Your task to perform on an android device: install app "ColorNote Notepad Notes" Image 0: 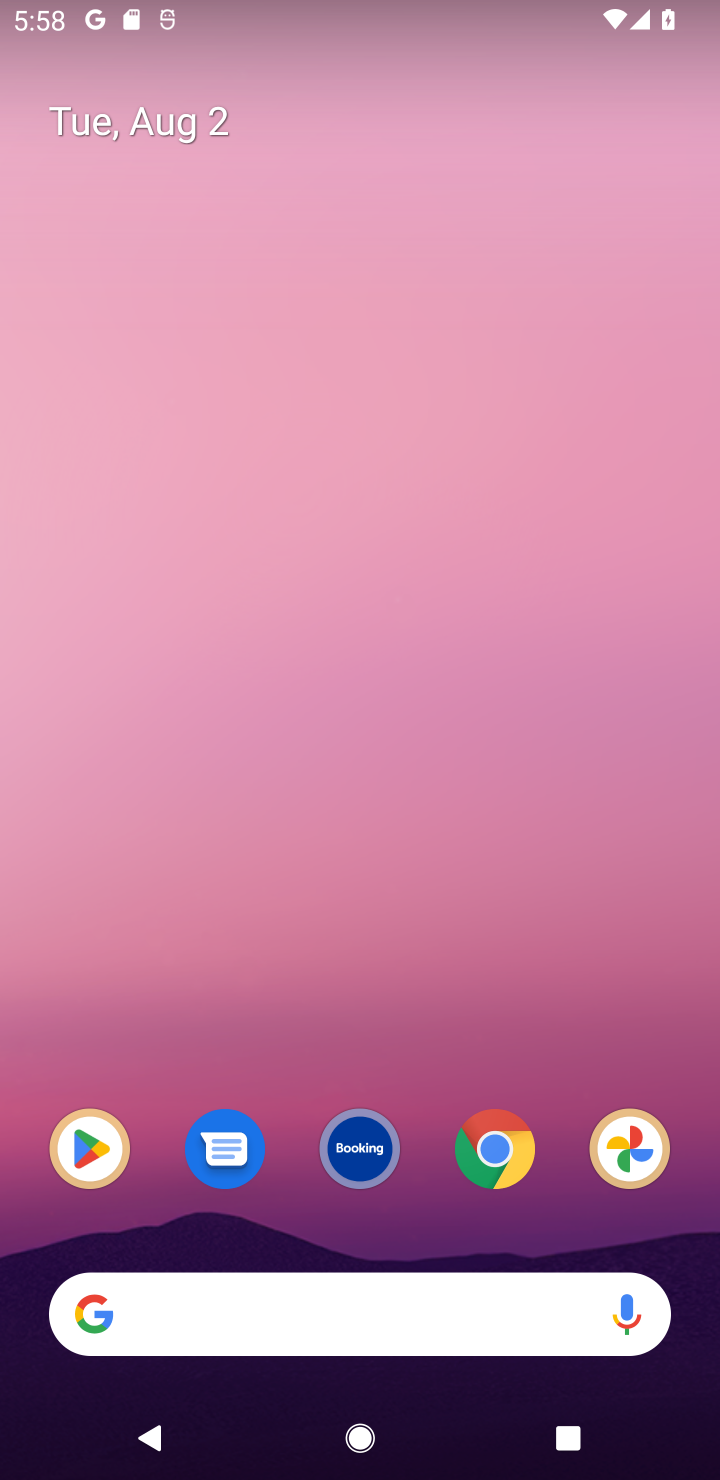
Step 0: drag from (210, 1267) to (489, 12)
Your task to perform on an android device: install app "ColorNote Notepad Notes" Image 1: 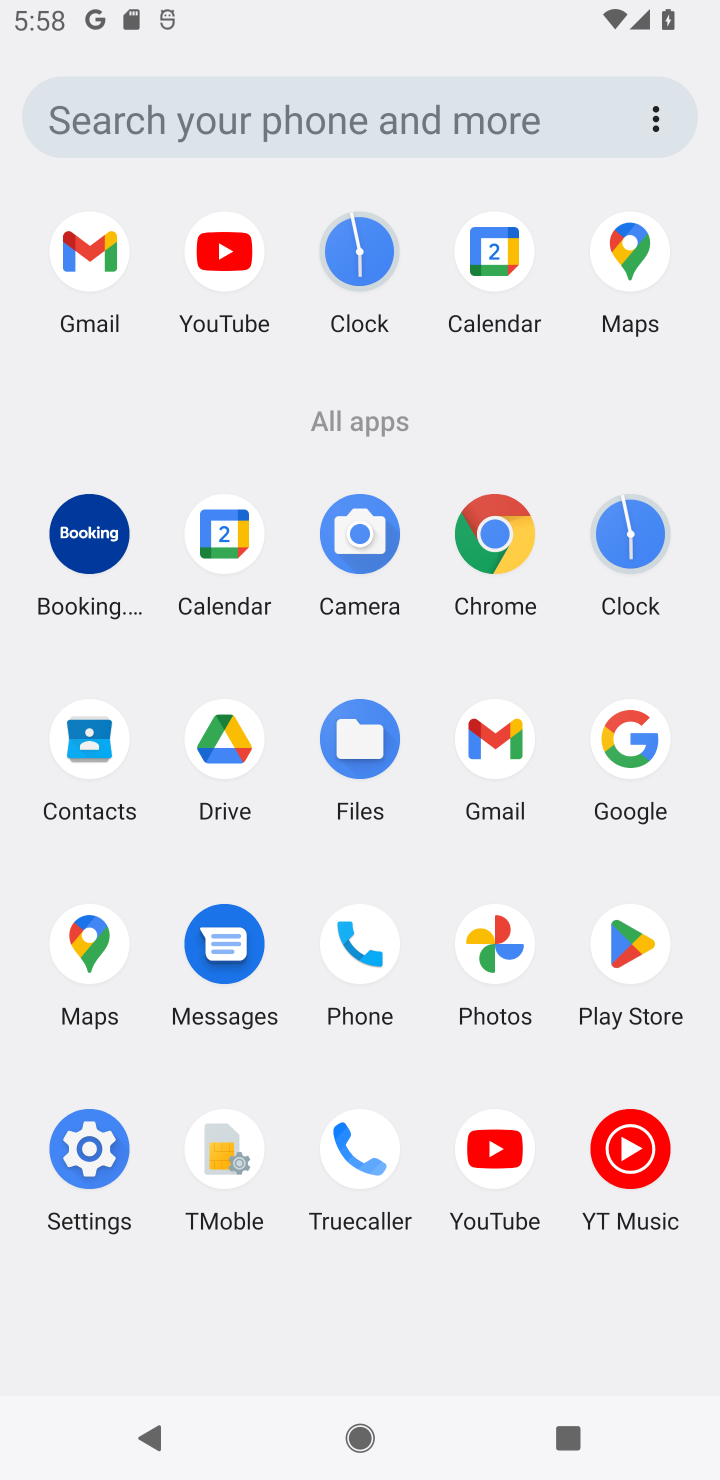
Step 1: click (618, 967)
Your task to perform on an android device: install app "ColorNote Notepad Notes" Image 2: 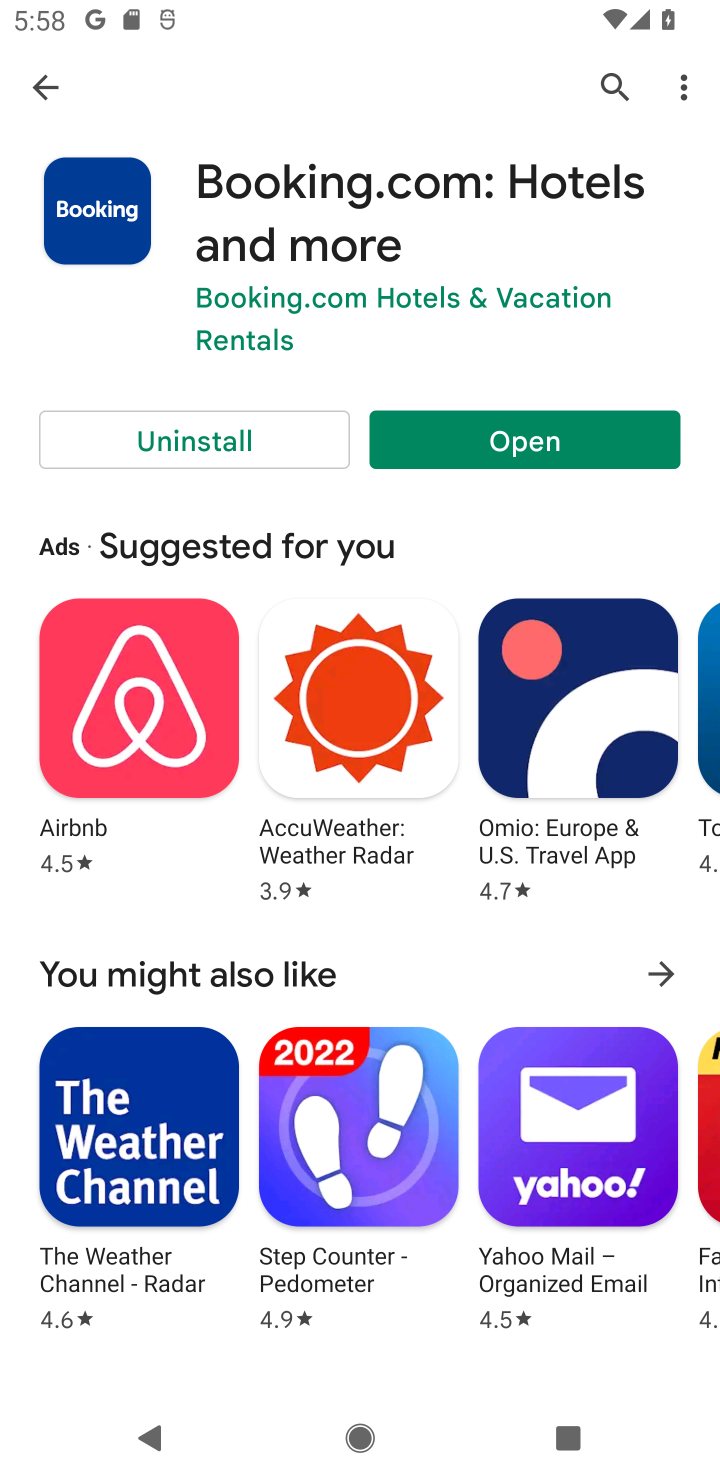
Step 2: click (30, 104)
Your task to perform on an android device: install app "ColorNote Notepad Notes" Image 3: 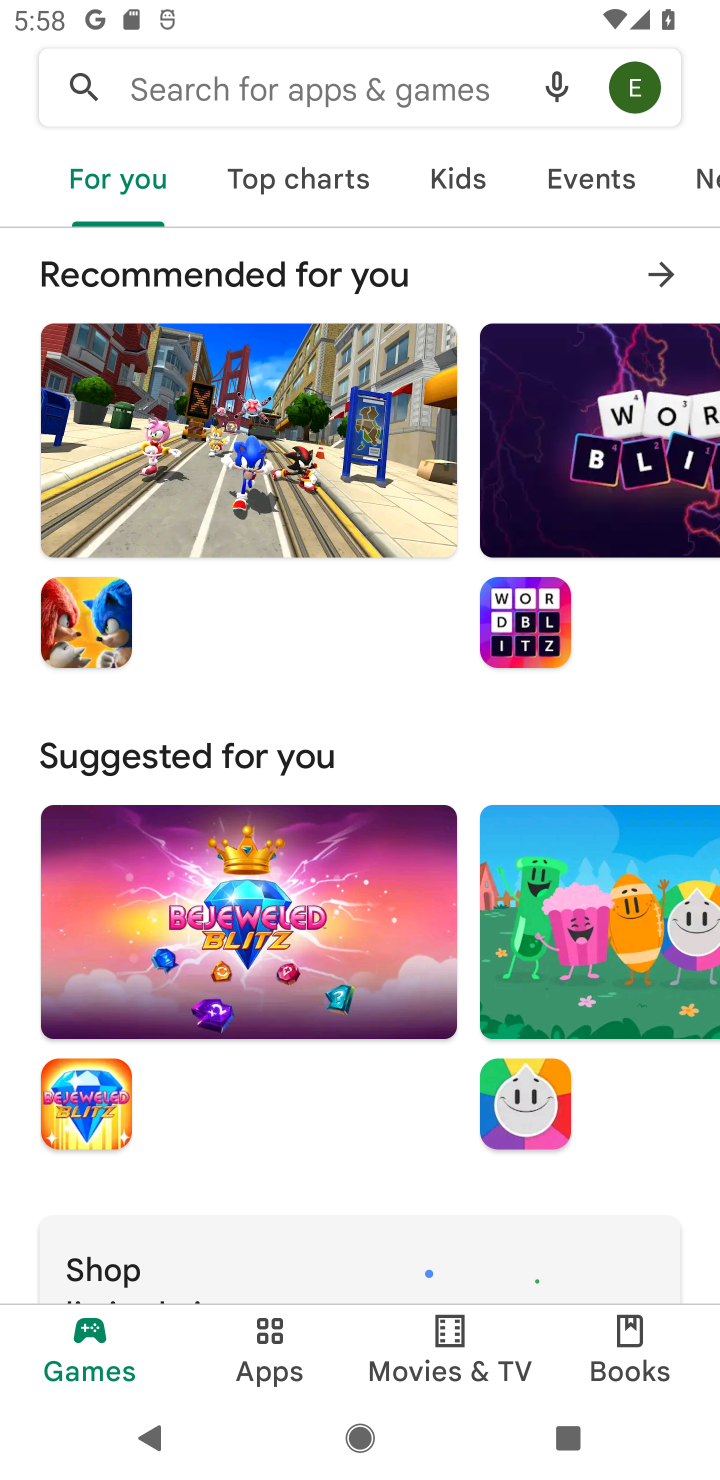
Step 3: click (362, 85)
Your task to perform on an android device: install app "ColorNote Notepad Notes" Image 4: 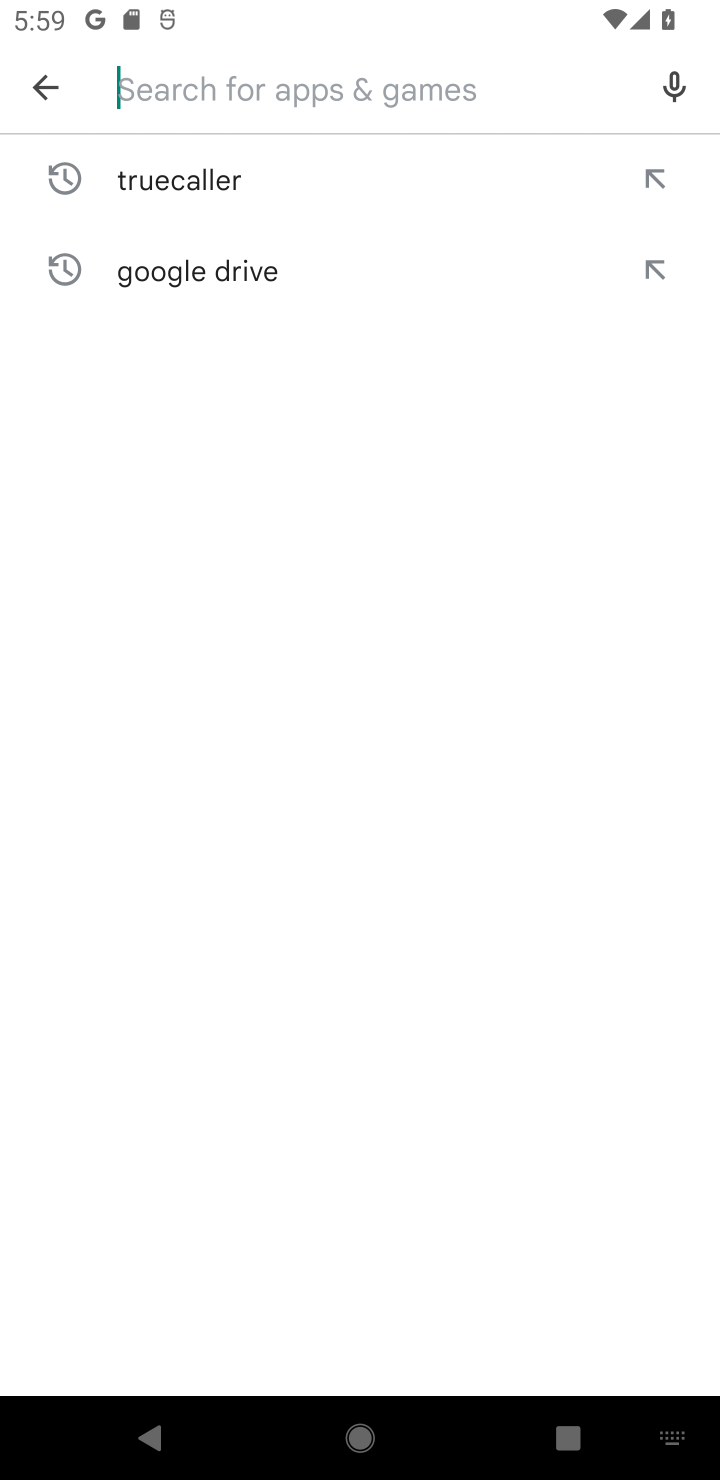
Step 4: type "ColorNote Notepad Notes"
Your task to perform on an android device: install app "ColorNote Notepad Notes" Image 5: 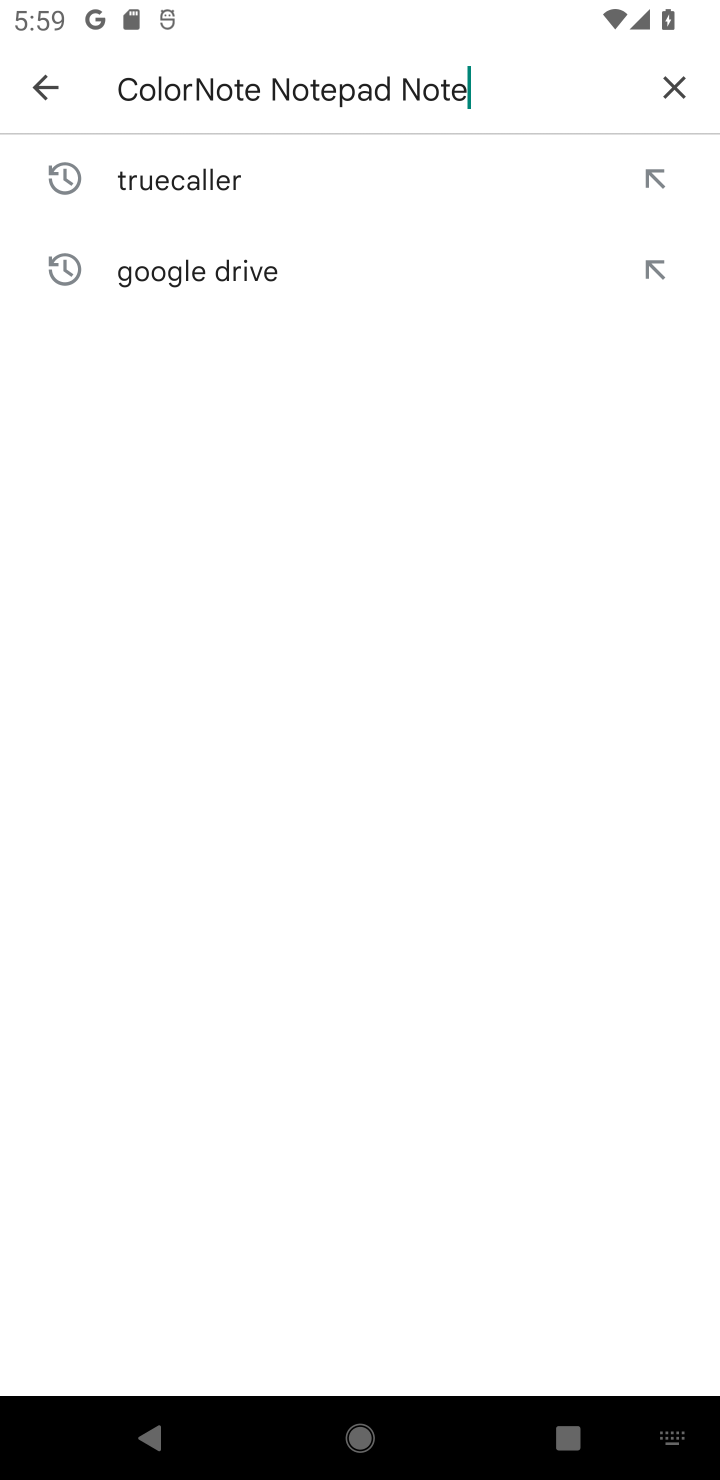
Step 5: type ""
Your task to perform on an android device: install app "ColorNote Notepad Notes" Image 6: 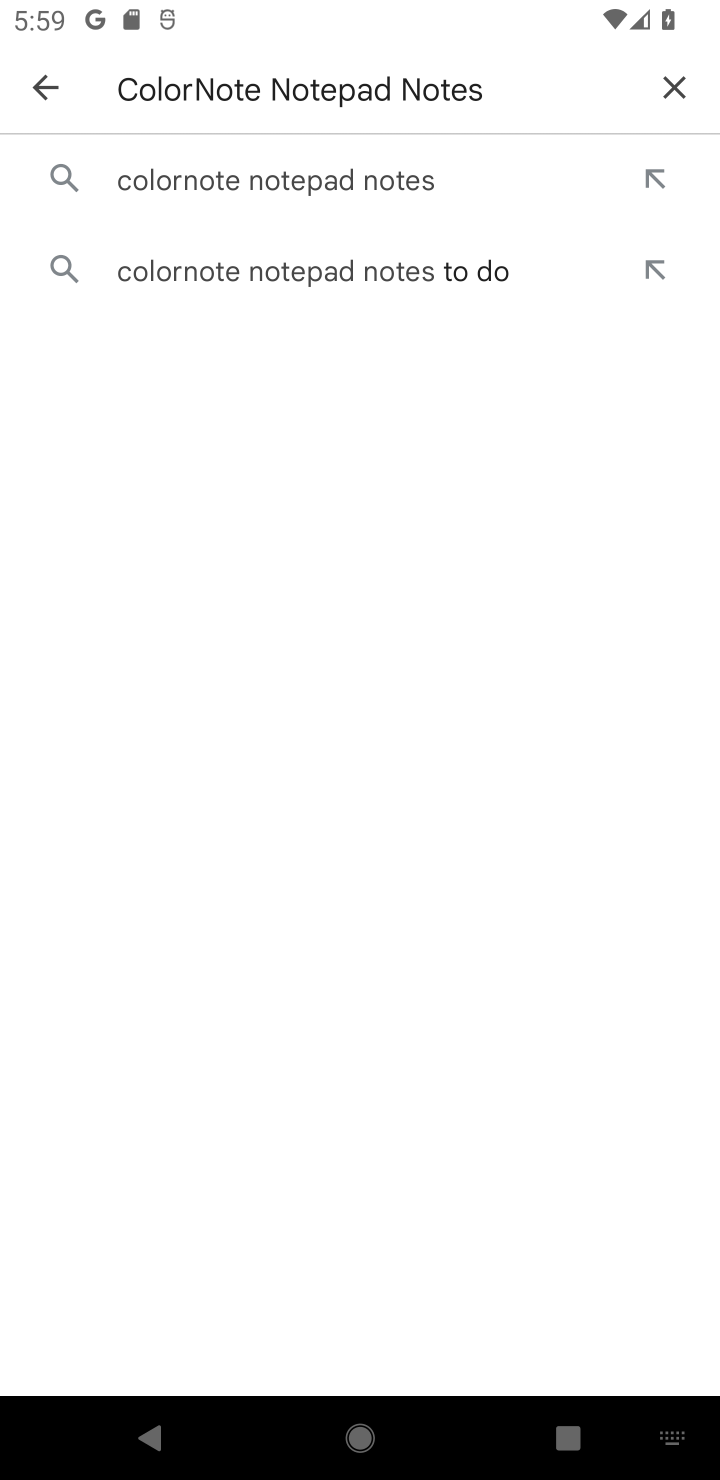
Step 6: click (252, 200)
Your task to perform on an android device: install app "ColorNote Notepad Notes" Image 7: 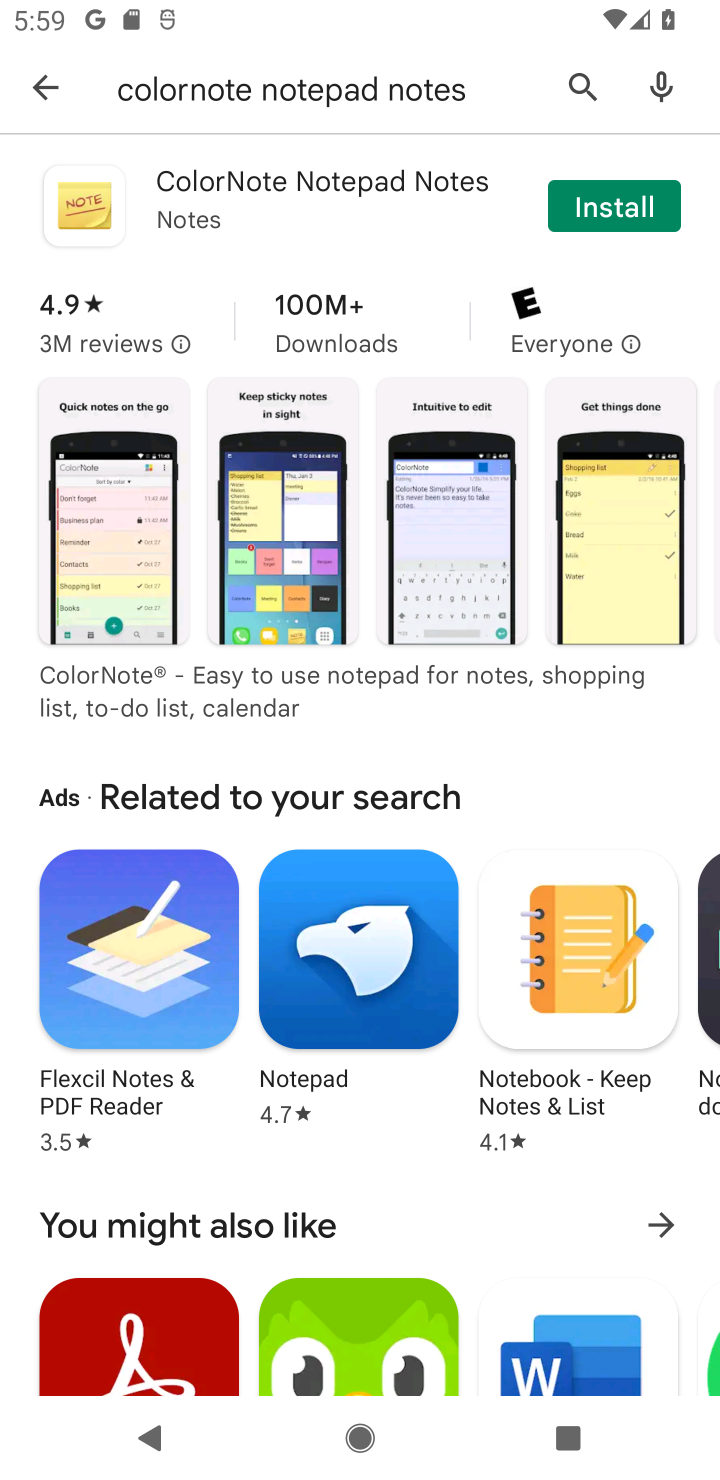
Step 7: click (599, 209)
Your task to perform on an android device: install app "ColorNote Notepad Notes" Image 8: 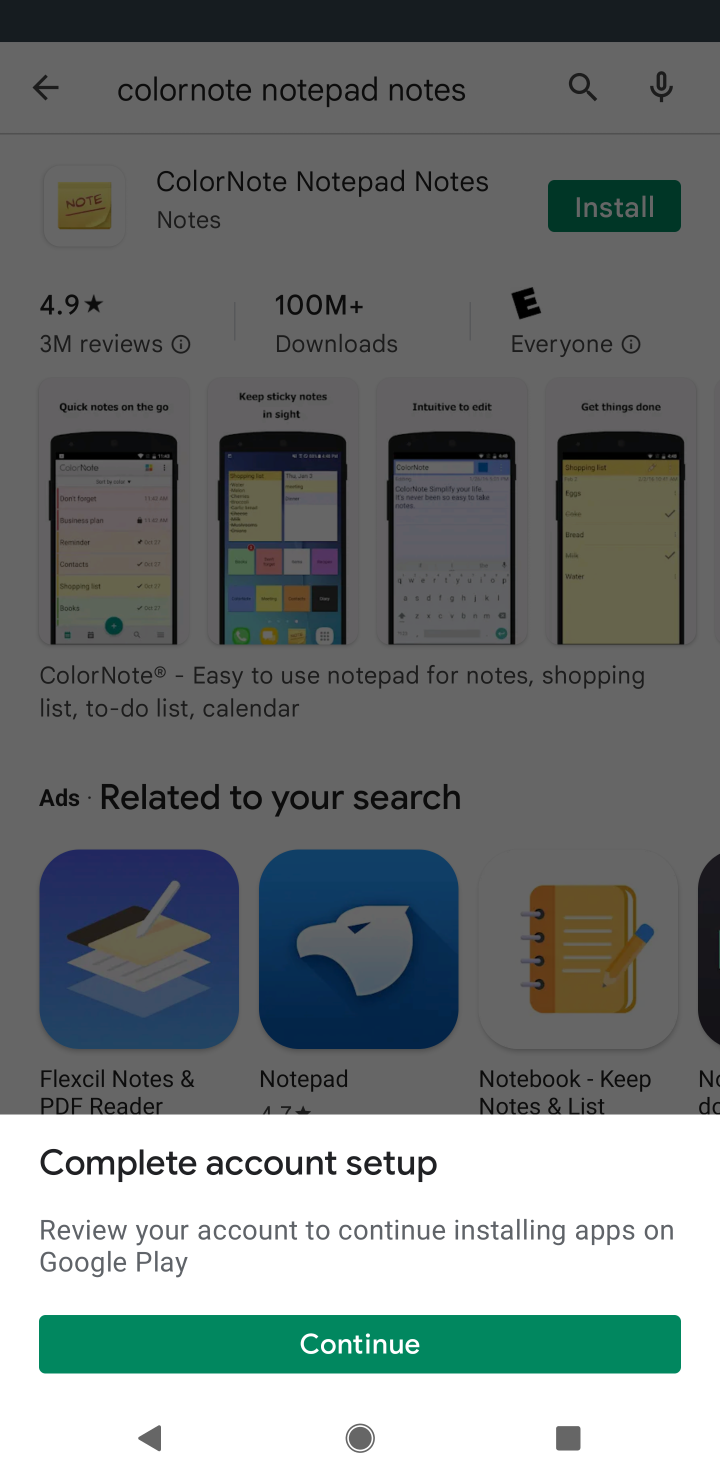
Step 8: click (258, 1316)
Your task to perform on an android device: install app "ColorNote Notepad Notes" Image 9: 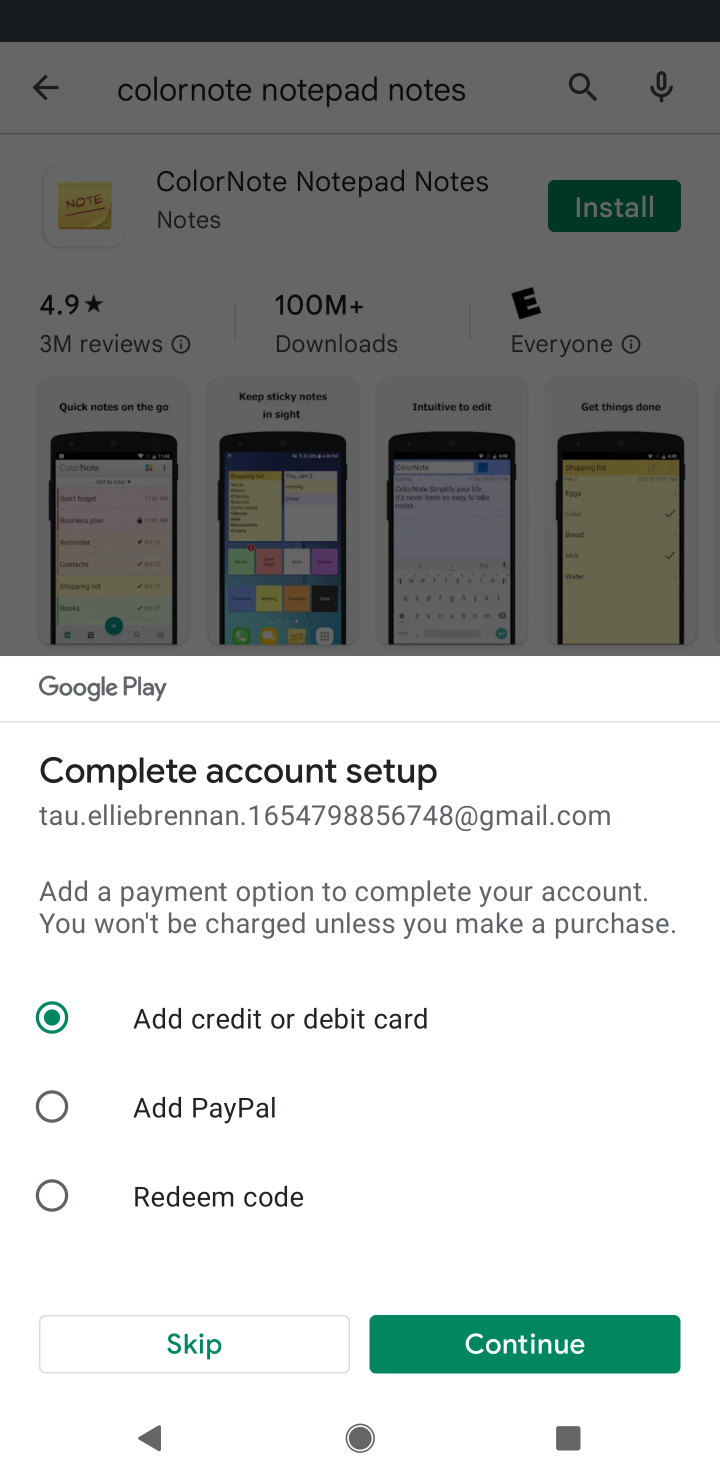
Step 9: click (231, 1338)
Your task to perform on an android device: install app "ColorNote Notepad Notes" Image 10: 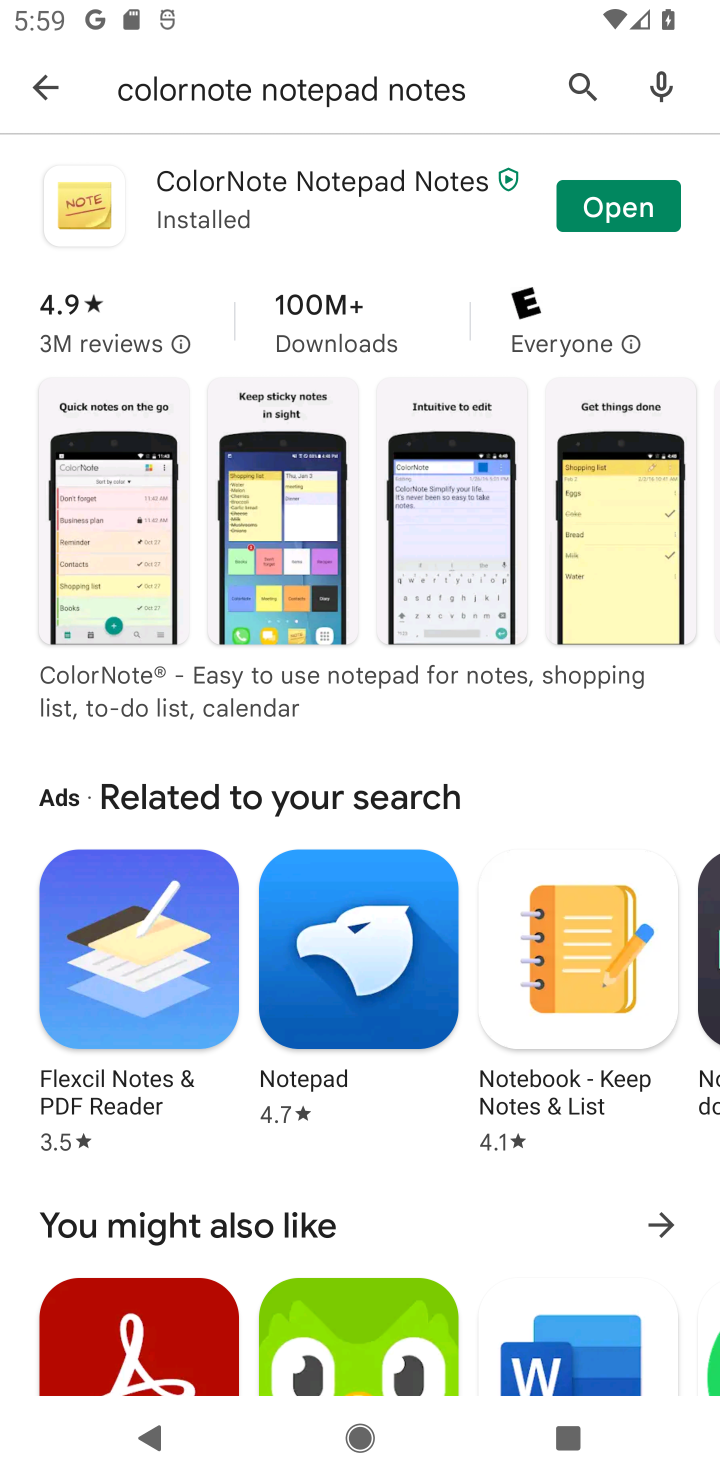
Step 10: click (586, 192)
Your task to perform on an android device: install app "ColorNote Notepad Notes" Image 11: 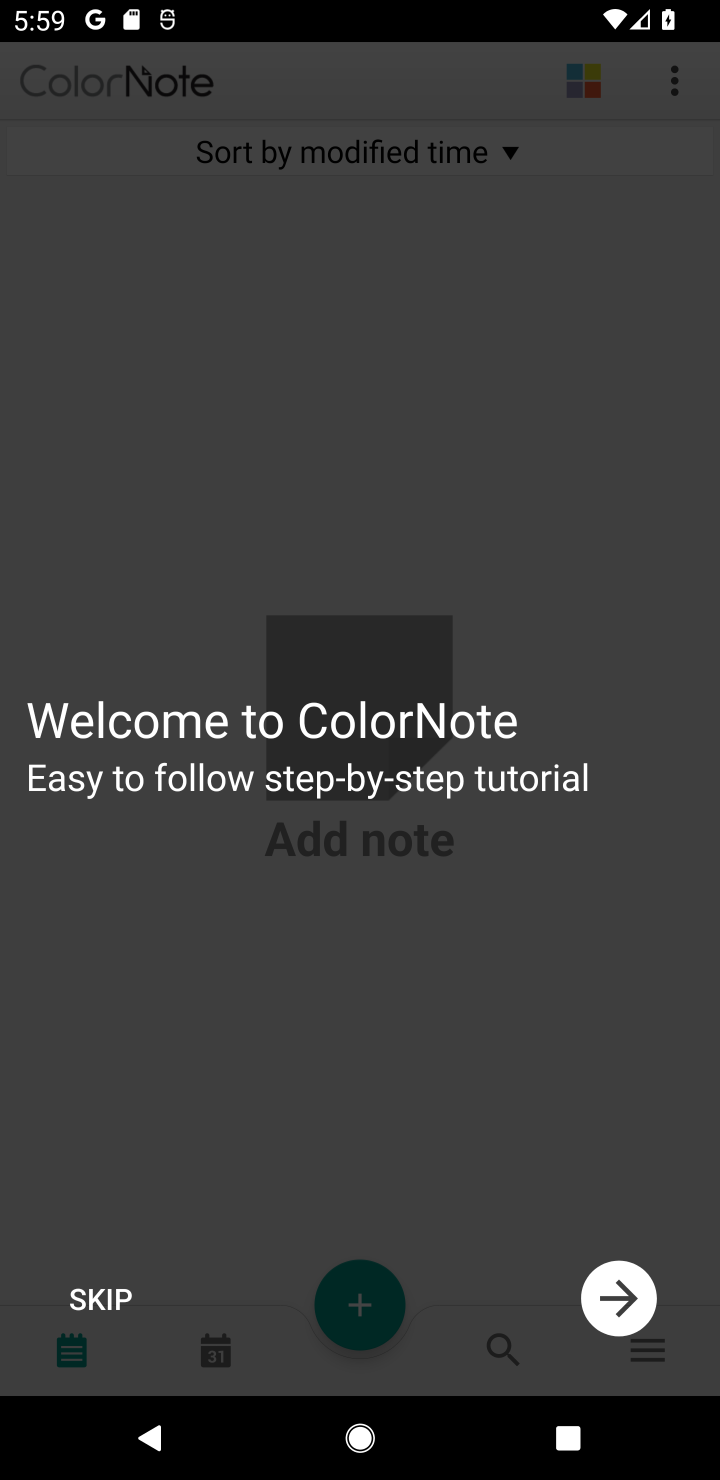
Step 11: task complete